Your task to perform on an android device: toggle notifications settings in the gmail app Image 0: 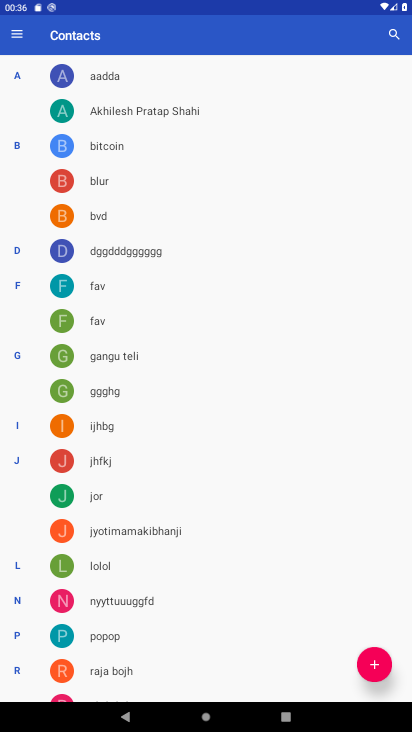
Step 0: press home button
Your task to perform on an android device: toggle notifications settings in the gmail app Image 1: 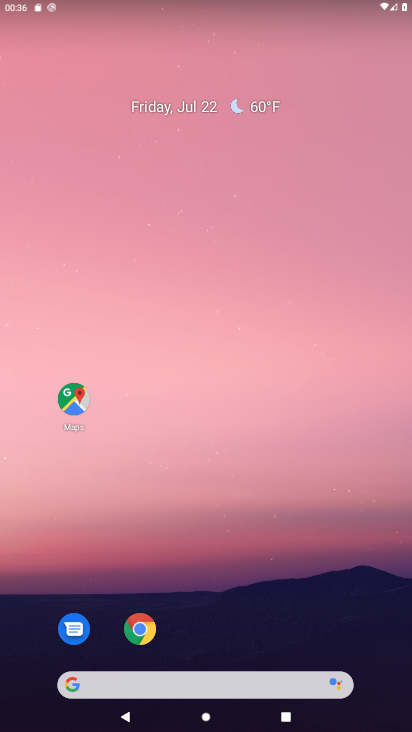
Step 1: drag from (192, 601) to (197, 257)
Your task to perform on an android device: toggle notifications settings in the gmail app Image 2: 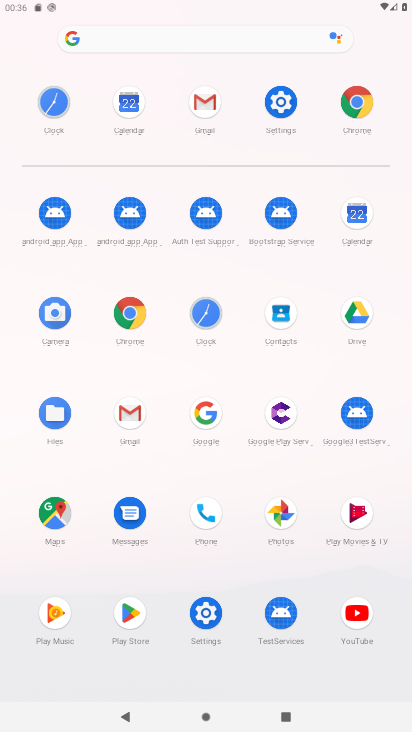
Step 2: click (208, 103)
Your task to perform on an android device: toggle notifications settings in the gmail app Image 3: 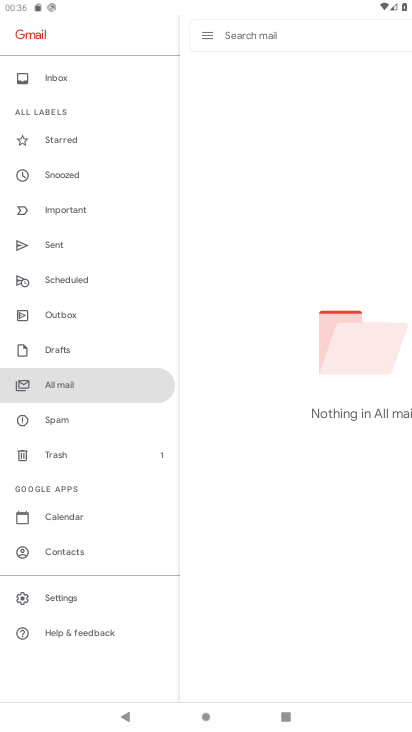
Step 3: click (74, 593)
Your task to perform on an android device: toggle notifications settings in the gmail app Image 4: 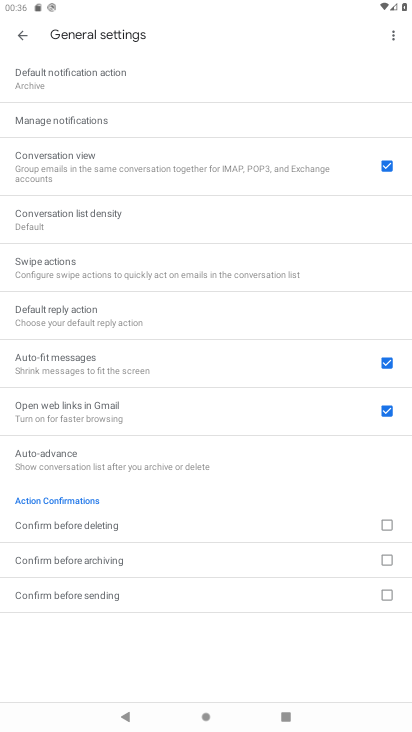
Step 4: click (28, 25)
Your task to perform on an android device: toggle notifications settings in the gmail app Image 5: 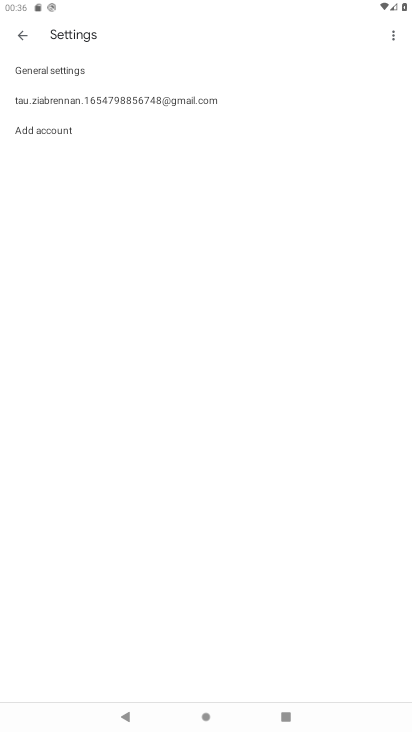
Step 5: click (75, 99)
Your task to perform on an android device: toggle notifications settings in the gmail app Image 6: 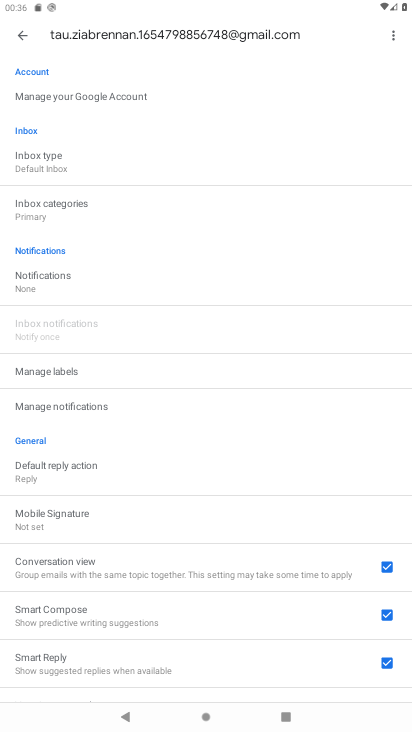
Step 6: click (72, 286)
Your task to perform on an android device: toggle notifications settings in the gmail app Image 7: 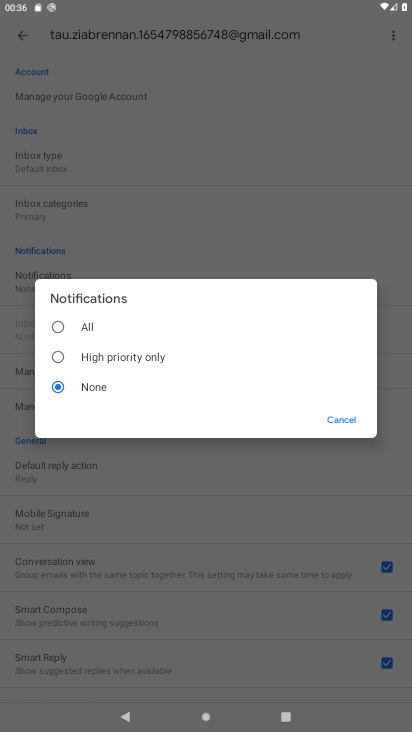
Step 7: click (87, 324)
Your task to perform on an android device: toggle notifications settings in the gmail app Image 8: 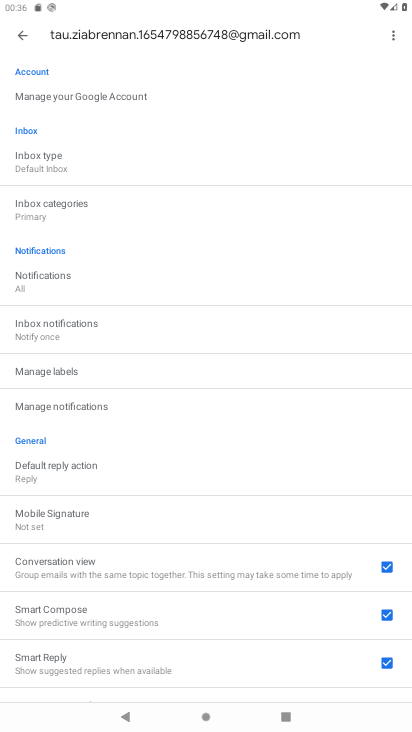
Step 8: task complete